Your task to perform on an android device: install app "ColorNote Notepad Notes" Image 0: 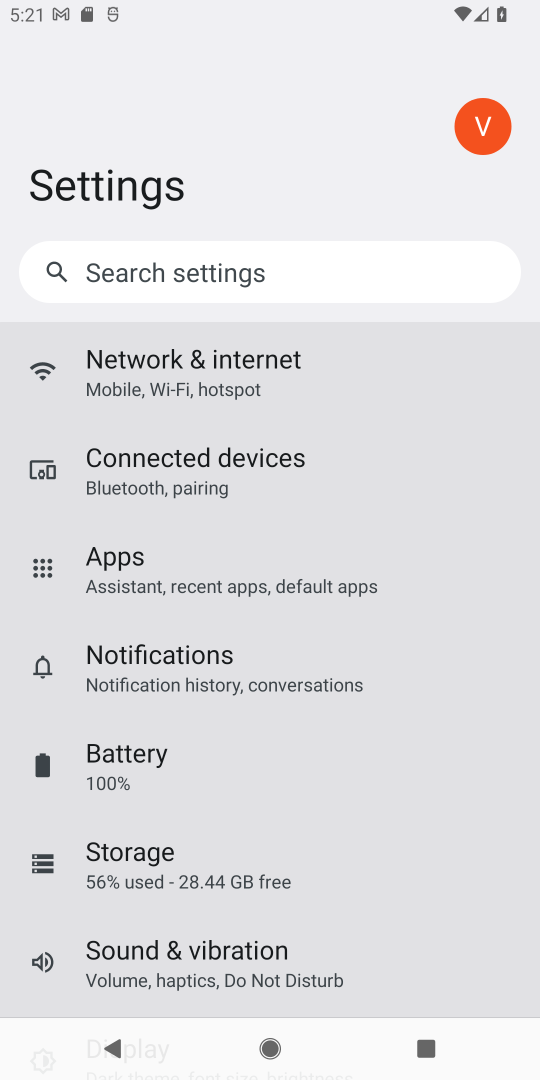
Step 0: press home button
Your task to perform on an android device: install app "ColorNote Notepad Notes" Image 1: 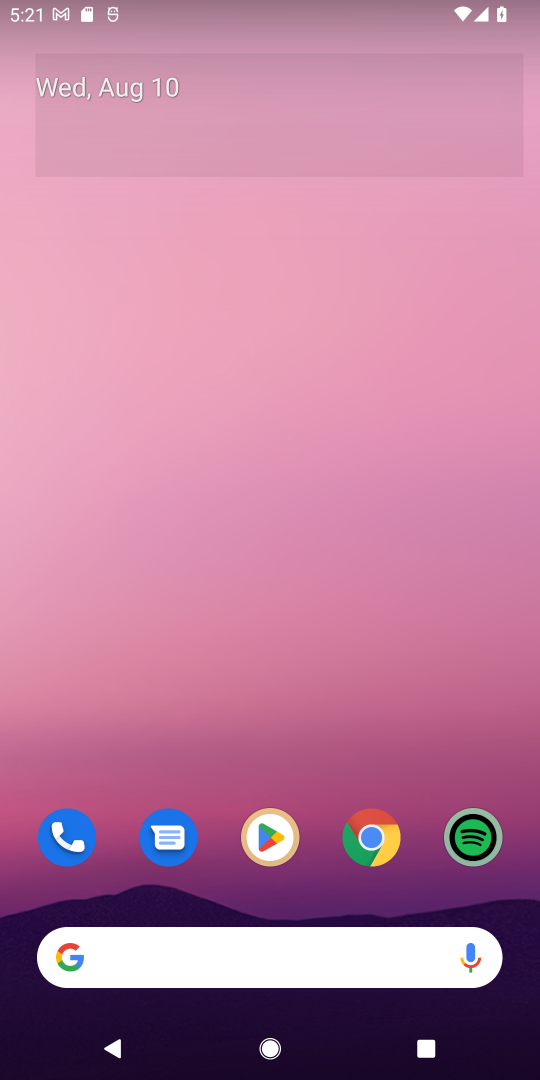
Step 1: click (272, 837)
Your task to perform on an android device: install app "ColorNote Notepad Notes" Image 2: 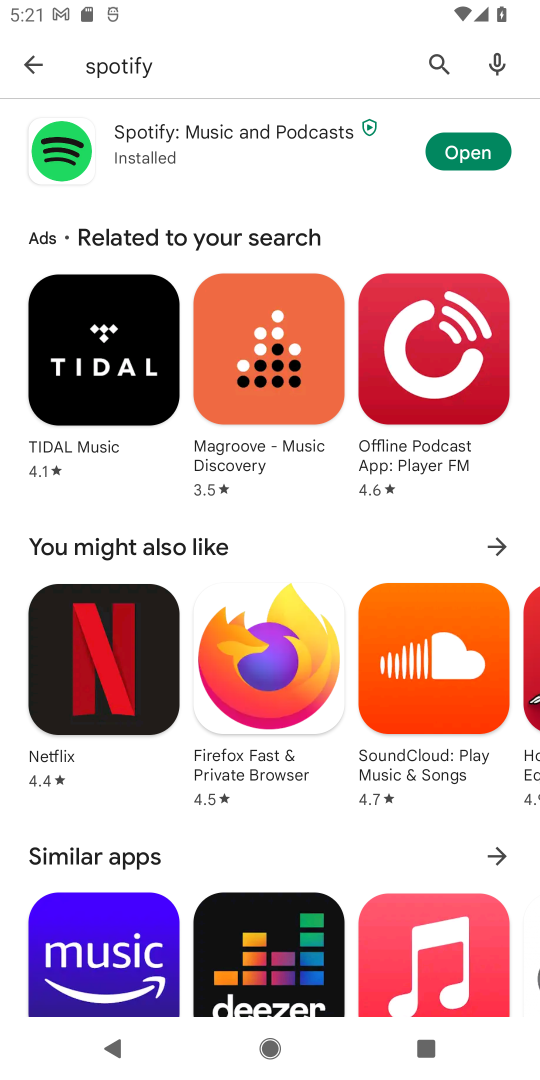
Step 2: click (440, 55)
Your task to perform on an android device: install app "ColorNote Notepad Notes" Image 3: 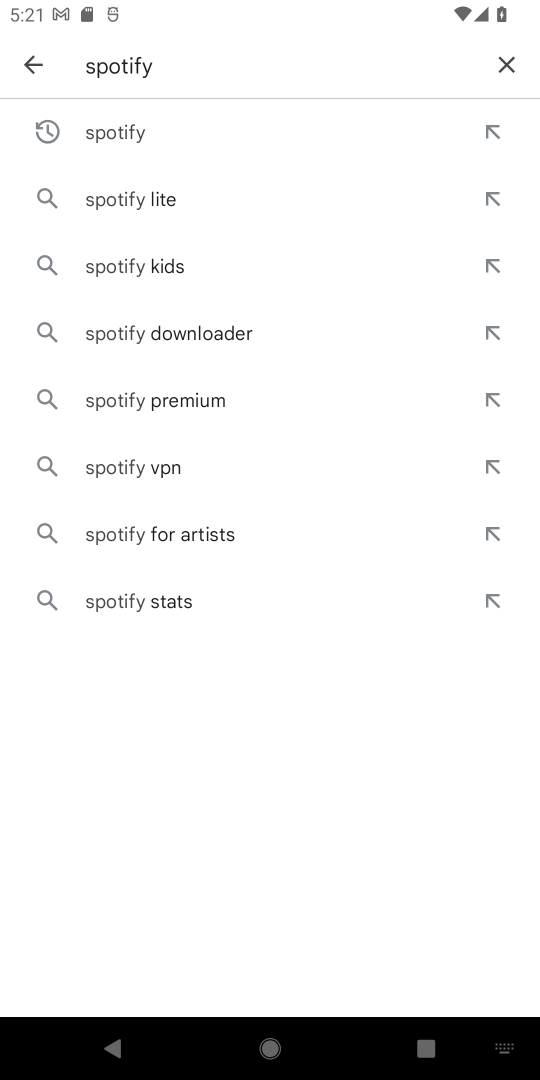
Step 3: click (495, 57)
Your task to perform on an android device: install app "ColorNote Notepad Notes" Image 4: 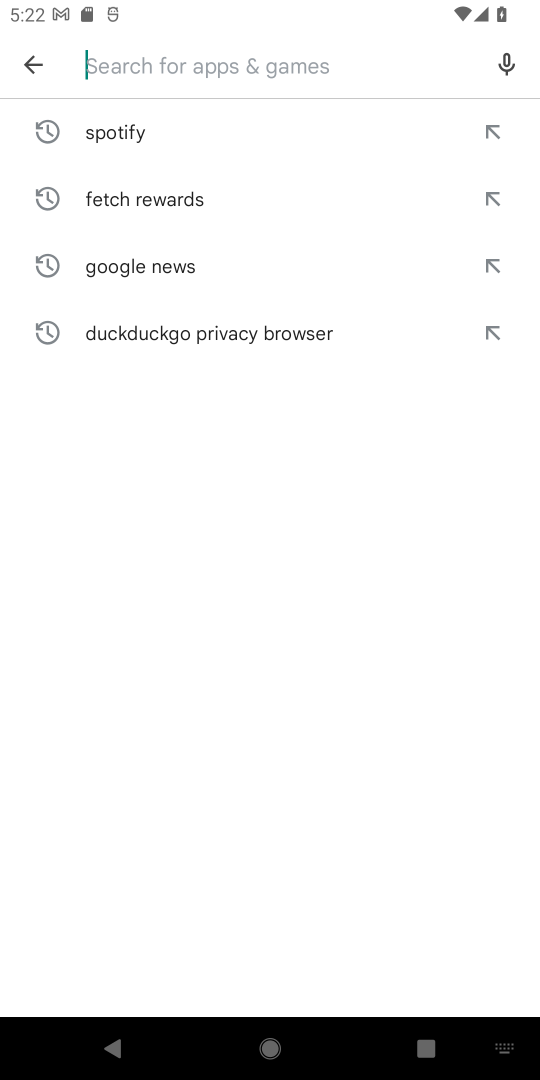
Step 4: type "ColorNote Notepad Notes"
Your task to perform on an android device: install app "ColorNote Notepad Notes" Image 5: 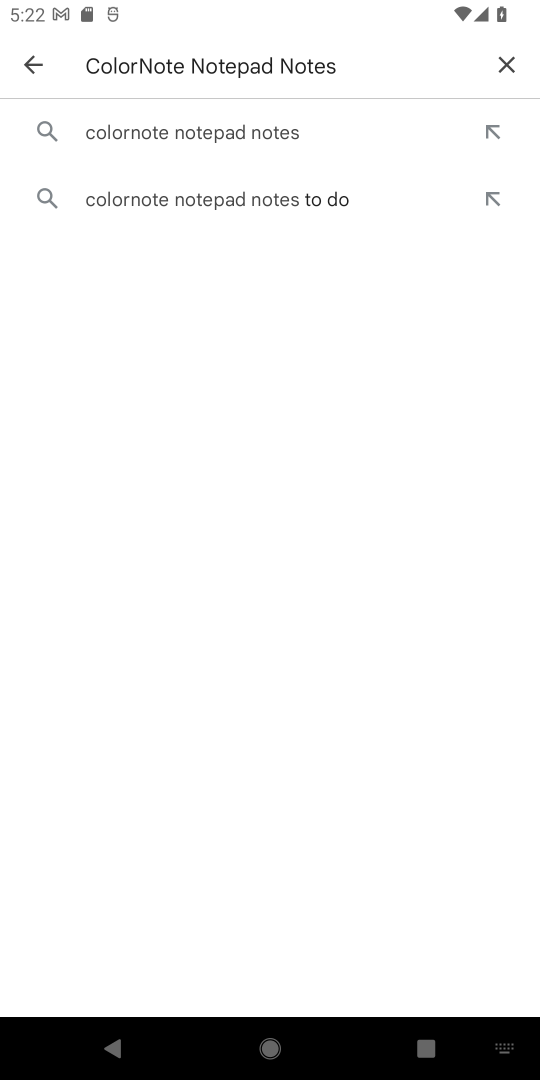
Step 5: click (287, 134)
Your task to perform on an android device: install app "ColorNote Notepad Notes" Image 6: 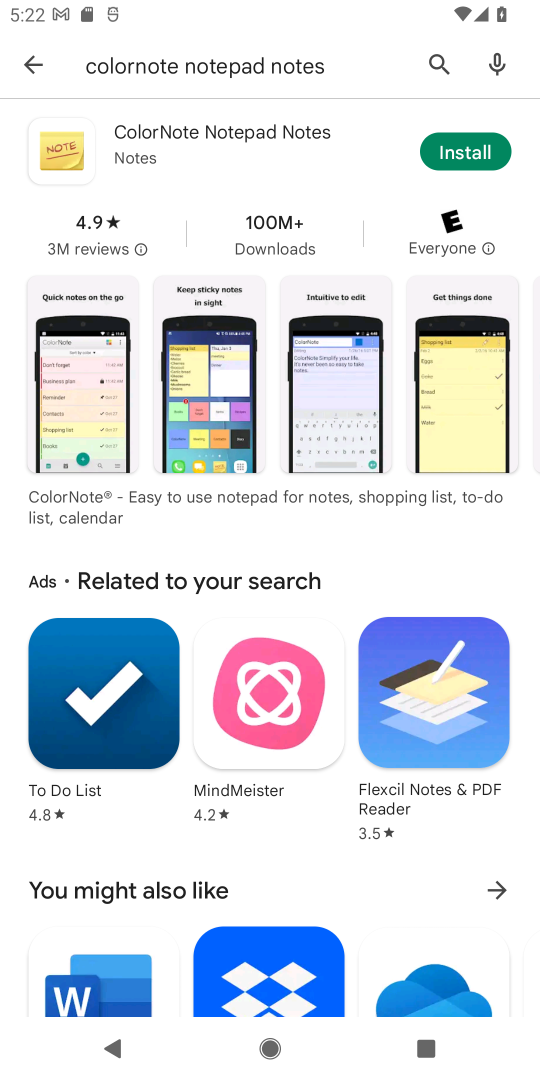
Step 6: click (475, 143)
Your task to perform on an android device: install app "ColorNote Notepad Notes" Image 7: 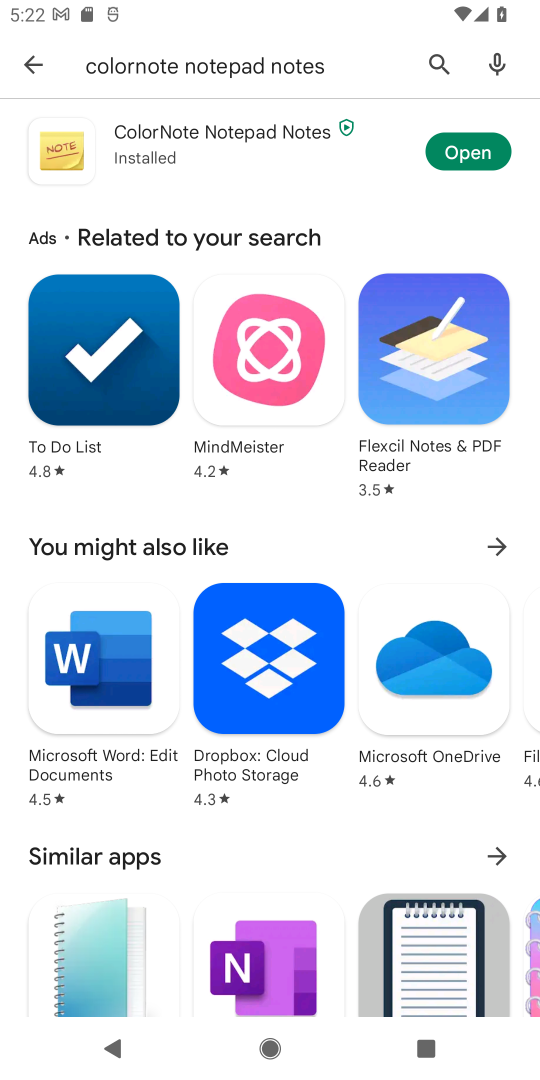
Step 7: task complete